Your task to perform on an android device: set the timer Image 0: 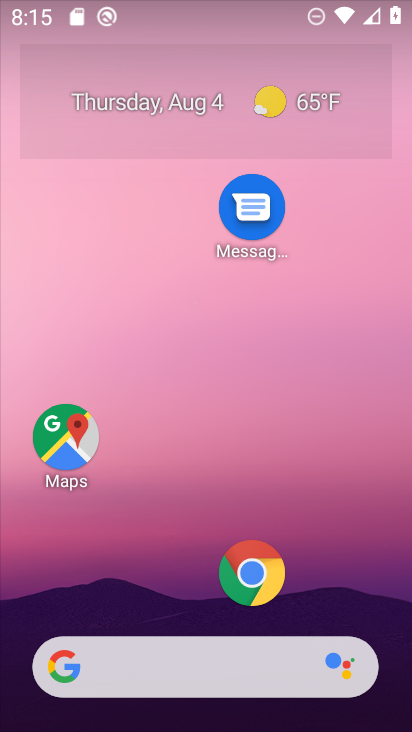
Step 0: drag from (159, 620) to (172, 108)
Your task to perform on an android device: set the timer Image 1: 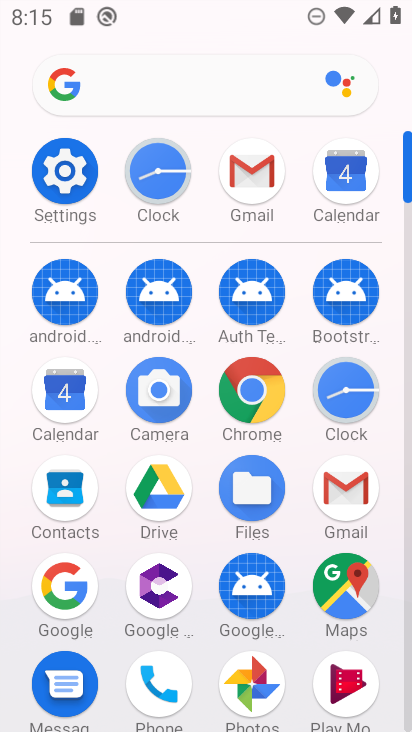
Step 1: click (164, 161)
Your task to perform on an android device: set the timer Image 2: 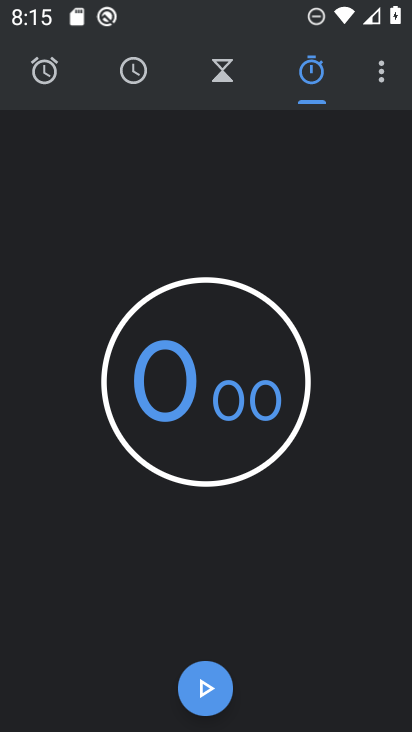
Step 2: click (226, 71)
Your task to perform on an android device: set the timer Image 3: 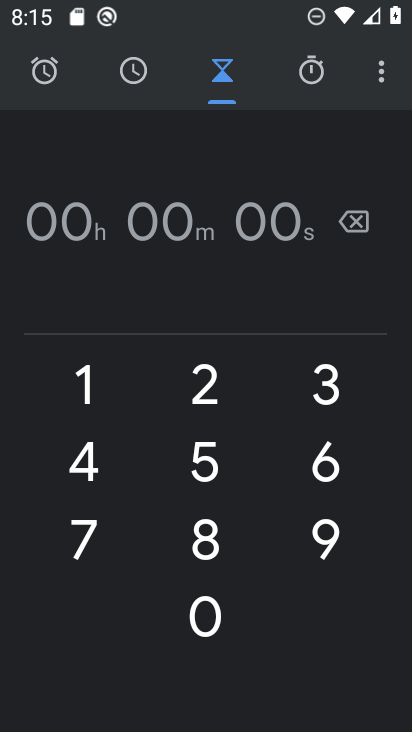
Step 3: click (100, 374)
Your task to perform on an android device: set the timer Image 4: 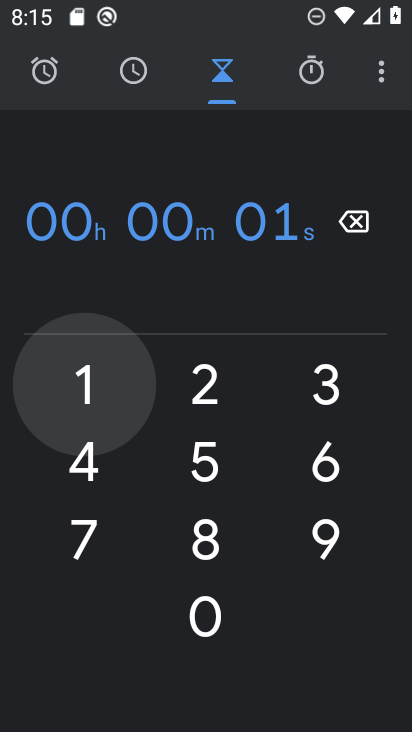
Step 4: click (100, 374)
Your task to perform on an android device: set the timer Image 5: 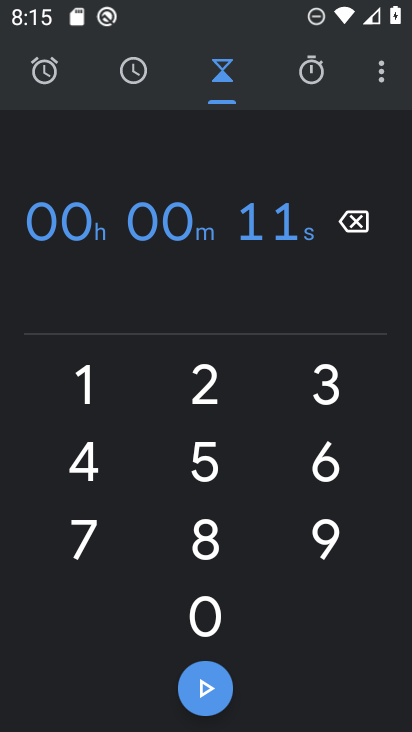
Step 5: click (205, 391)
Your task to perform on an android device: set the timer Image 6: 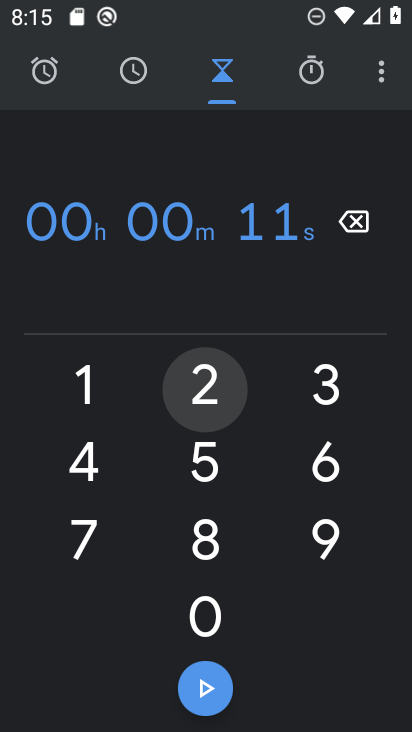
Step 6: click (205, 391)
Your task to perform on an android device: set the timer Image 7: 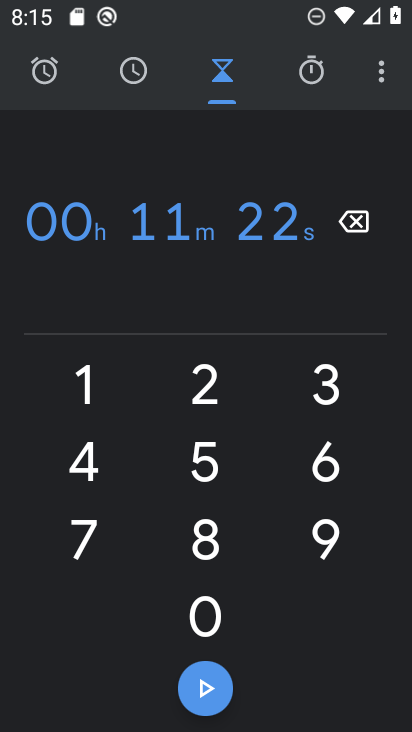
Step 7: click (335, 390)
Your task to perform on an android device: set the timer Image 8: 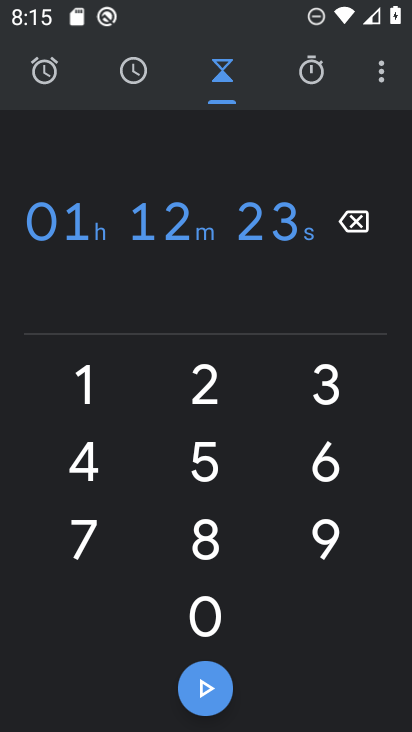
Step 8: click (214, 457)
Your task to perform on an android device: set the timer Image 9: 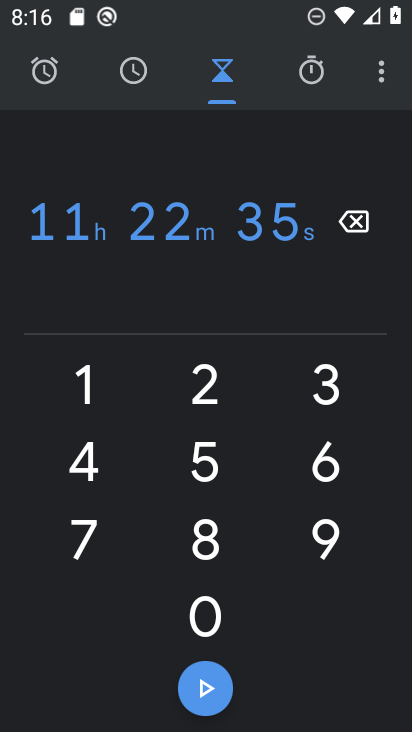
Step 9: click (201, 692)
Your task to perform on an android device: set the timer Image 10: 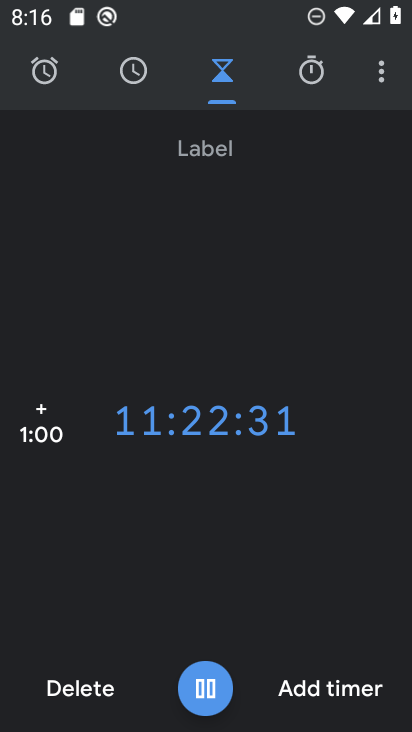
Step 10: task complete